Your task to perform on an android device: clear all cookies in the chrome app Image 0: 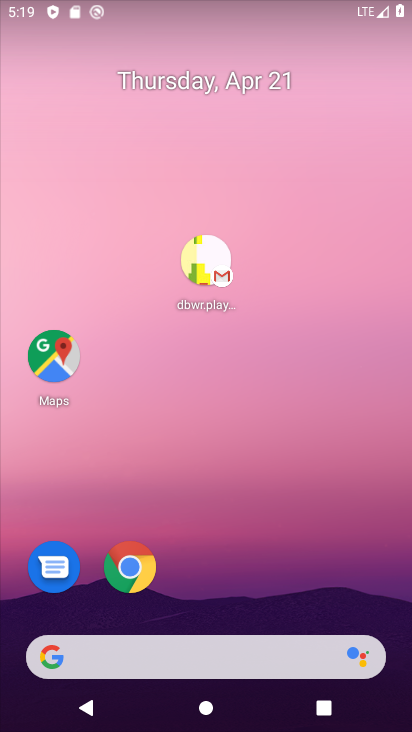
Step 0: click (132, 565)
Your task to perform on an android device: clear all cookies in the chrome app Image 1: 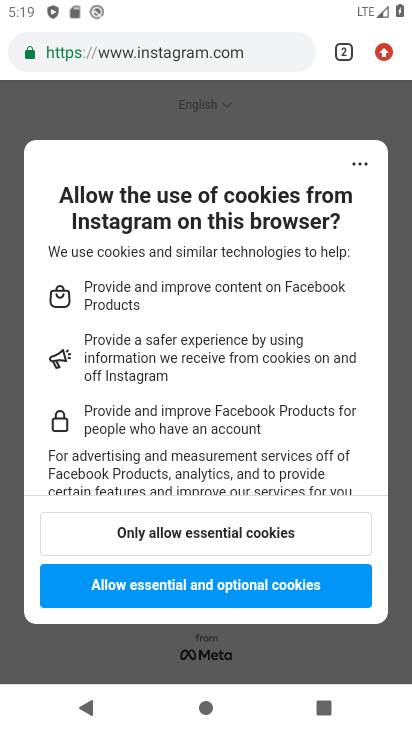
Step 1: click (380, 52)
Your task to perform on an android device: clear all cookies in the chrome app Image 2: 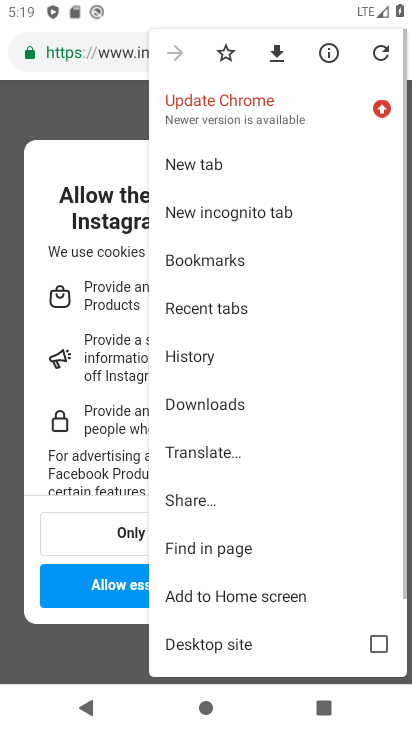
Step 2: drag from (224, 609) to (241, 494)
Your task to perform on an android device: clear all cookies in the chrome app Image 3: 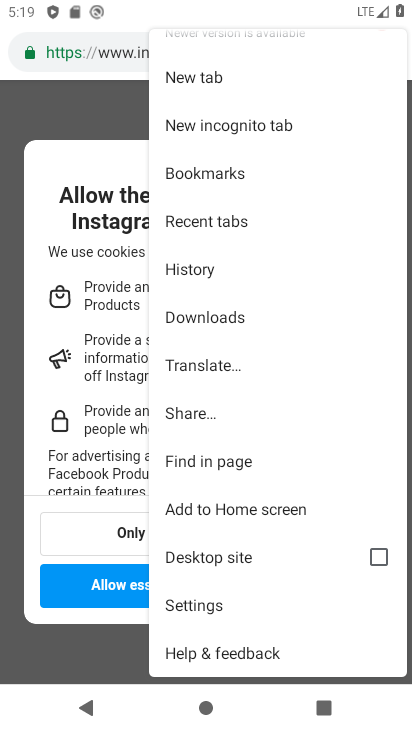
Step 3: click (200, 279)
Your task to perform on an android device: clear all cookies in the chrome app Image 4: 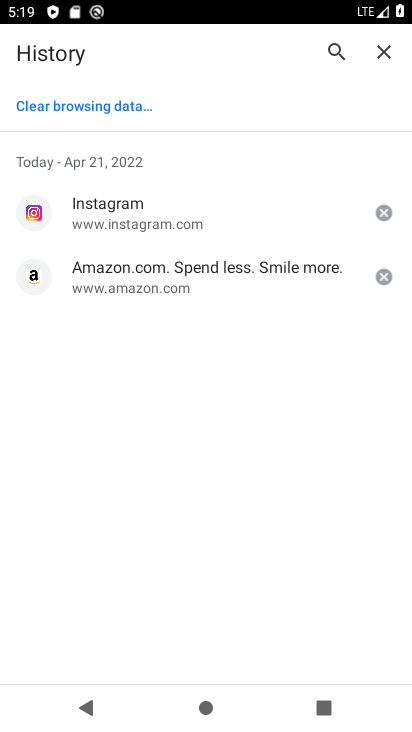
Step 4: click (107, 114)
Your task to perform on an android device: clear all cookies in the chrome app Image 5: 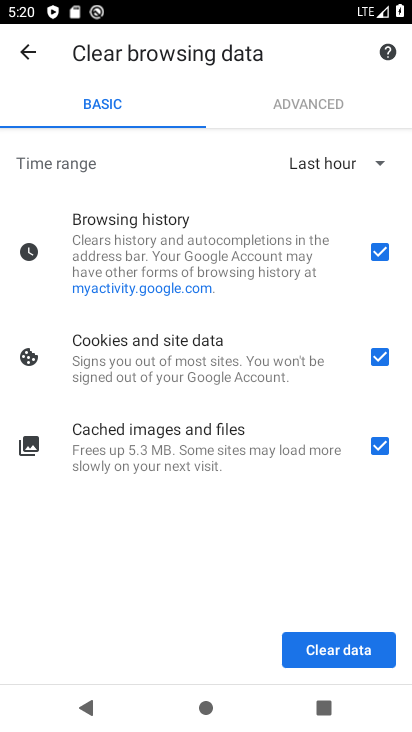
Step 5: click (377, 252)
Your task to perform on an android device: clear all cookies in the chrome app Image 6: 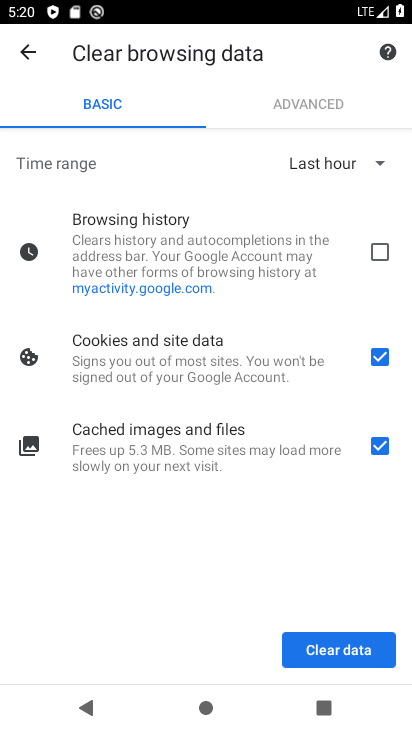
Step 6: click (373, 448)
Your task to perform on an android device: clear all cookies in the chrome app Image 7: 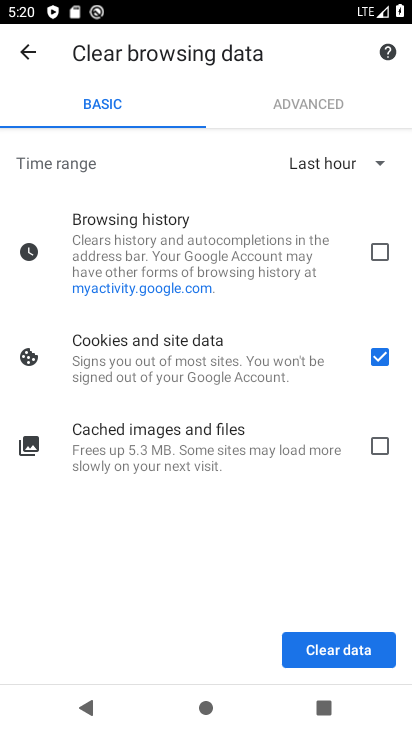
Step 7: click (354, 640)
Your task to perform on an android device: clear all cookies in the chrome app Image 8: 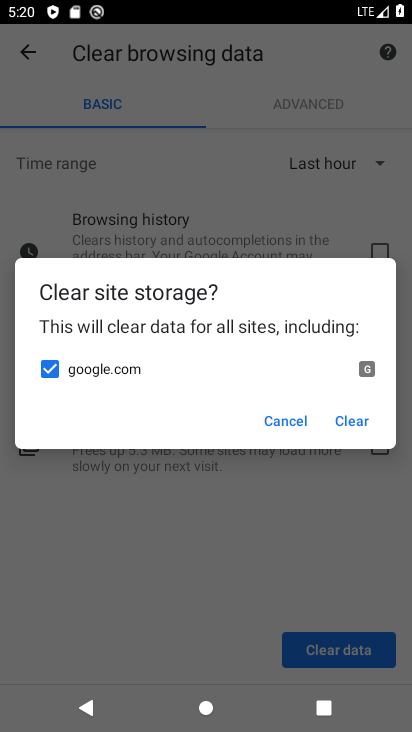
Step 8: click (354, 418)
Your task to perform on an android device: clear all cookies in the chrome app Image 9: 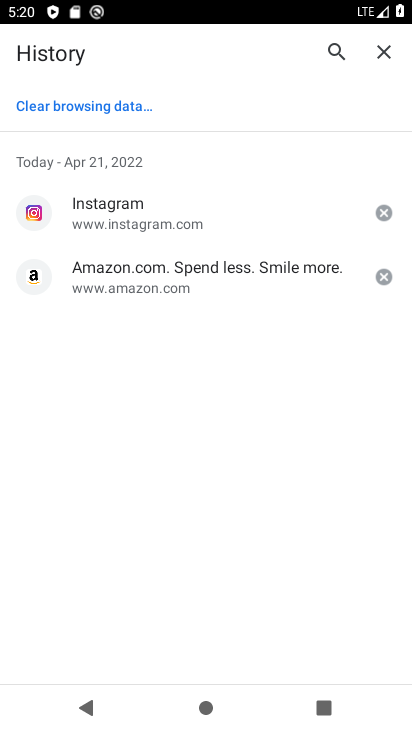
Step 9: task complete